Your task to perform on an android device: Open settings on Google Maps Image 0: 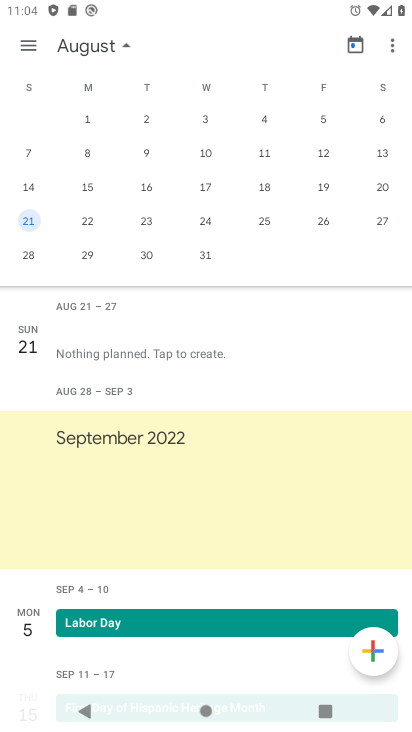
Step 0: press home button
Your task to perform on an android device: Open settings on Google Maps Image 1: 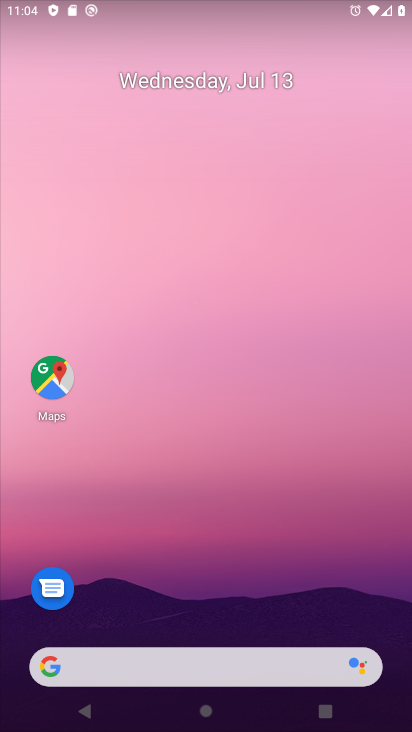
Step 1: click (56, 371)
Your task to perform on an android device: Open settings on Google Maps Image 2: 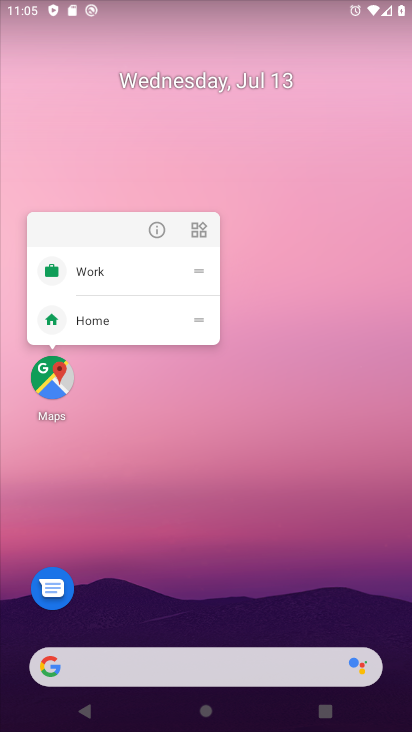
Step 2: click (56, 371)
Your task to perform on an android device: Open settings on Google Maps Image 3: 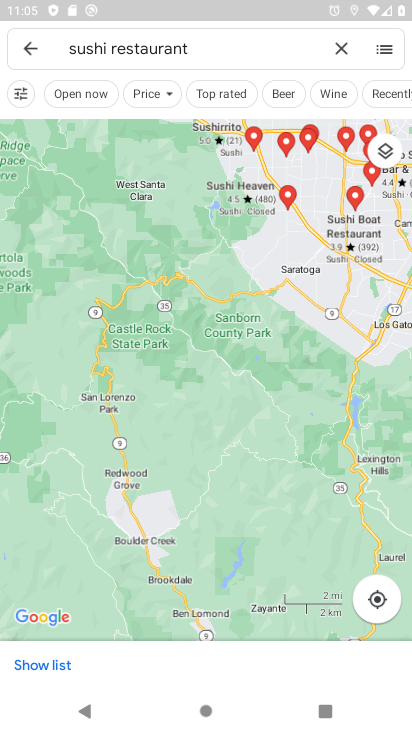
Step 3: click (342, 42)
Your task to perform on an android device: Open settings on Google Maps Image 4: 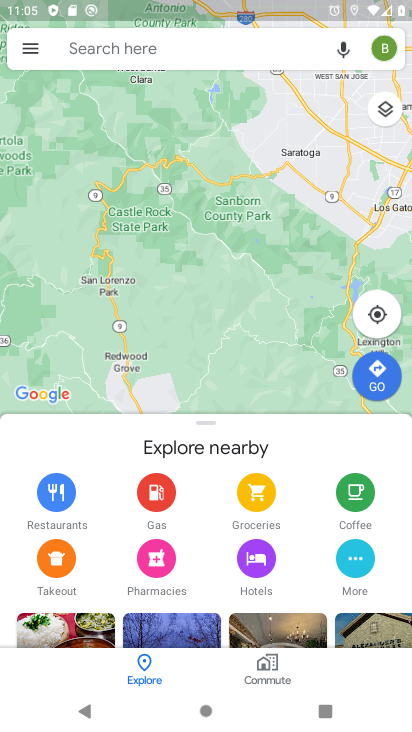
Step 4: click (24, 48)
Your task to perform on an android device: Open settings on Google Maps Image 5: 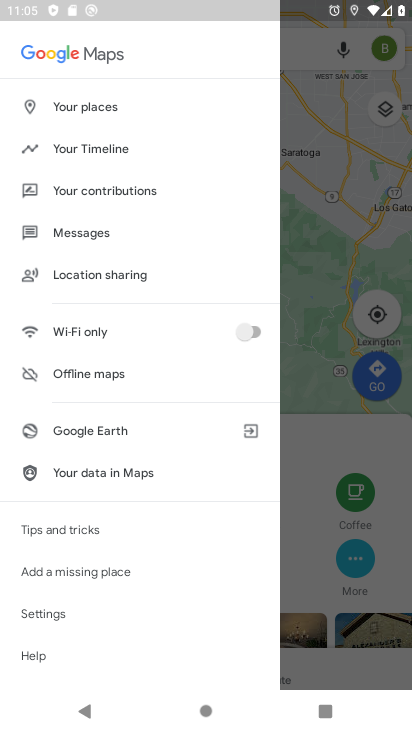
Step 5: click (51, 611)
Your task to perform on an android device: Open settings on Google Maps Image 6: 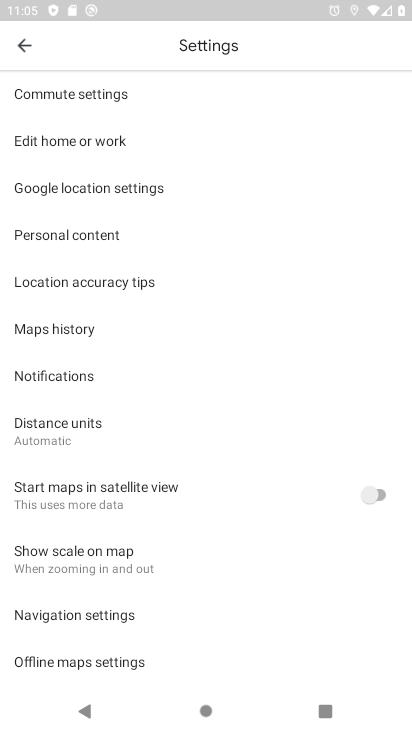
Step 6: click (51, 611)
Your task to perform on an android device: Open settings on Google Maps Image 7: 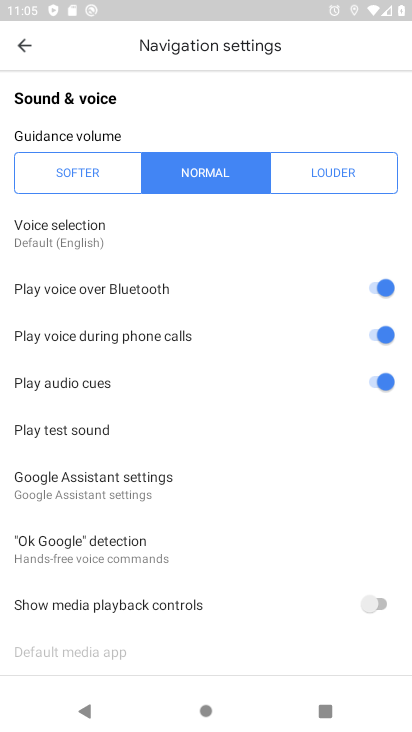
Step 7: click (21, 45)
Your task to perform on an android device: Open settings on Google Maps Image 8: 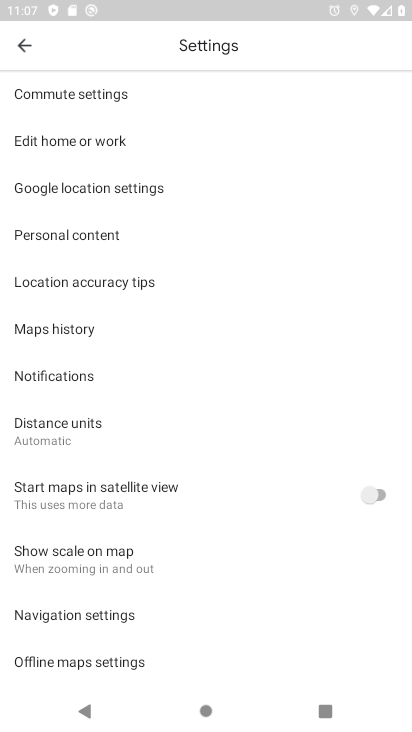
Step 8: task complete